Your task to perform on an android device: empty trash in google photos Image 0: 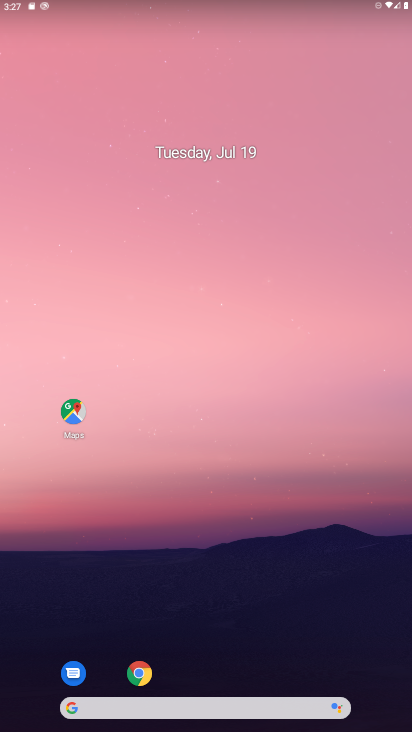
Step 0: drag from (192, 667) to (223, 50)
Your task to perform on an android device: empty trash in google photos Image 1: 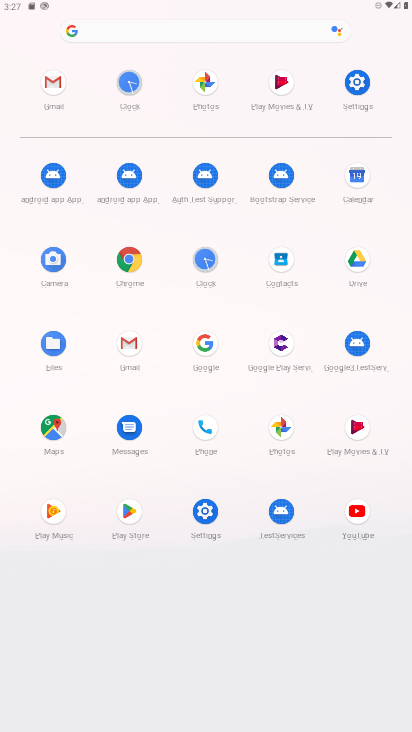
Step 1: click (273, 431)
Your task to perform on an android device: empty trash in google photos Image 2: 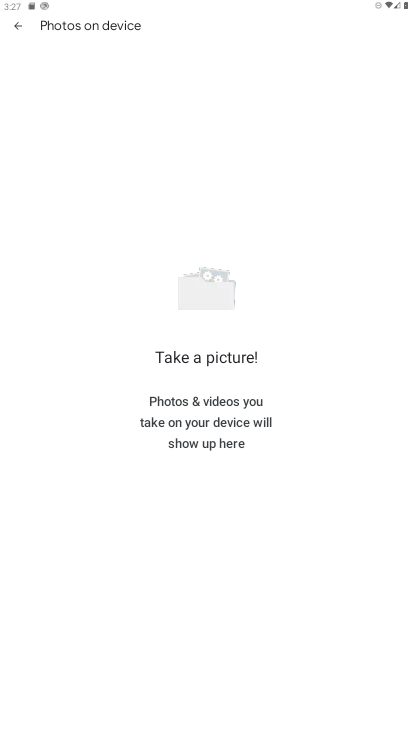
Step 2: click (27, 25)
Your task to perform on an android device: empty trash in google photos Image 3: 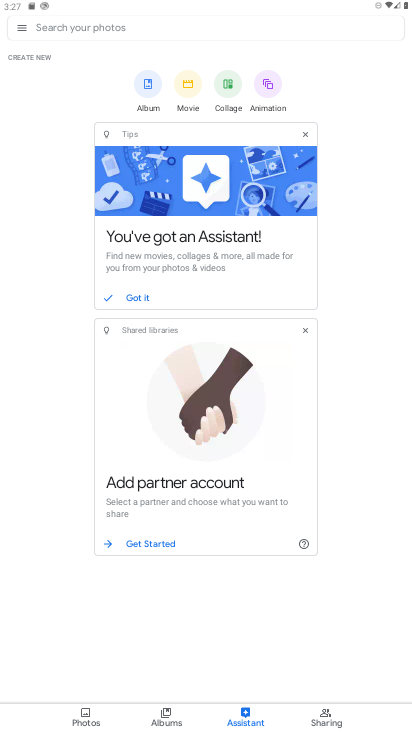
Step 3: click (22, 24)
Your task to perform on an android device: empty trash in google photos Image 4: 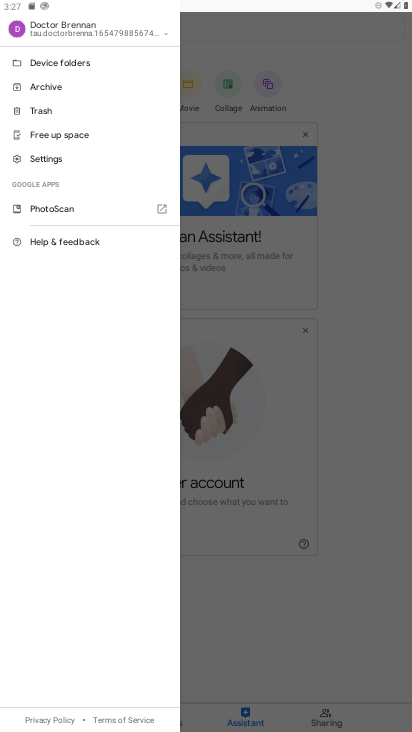
Step 4: click (44, 108)
Your task to perform on an android device: empty trash in google photos Image 5: 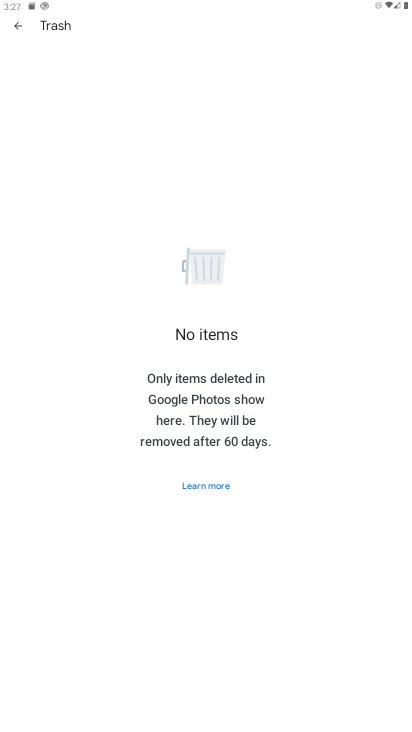
Step 5: task complete